Your task to perform on an android device: change notification settings in the gmail app Image 0: 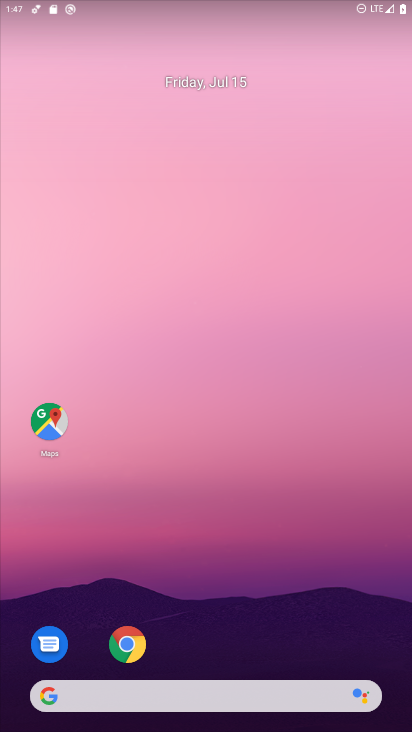
Step 0: drag from (19, 610) to (405, 34)
Your task to perform on an android device: change notification settings in the gmail app Image 1: 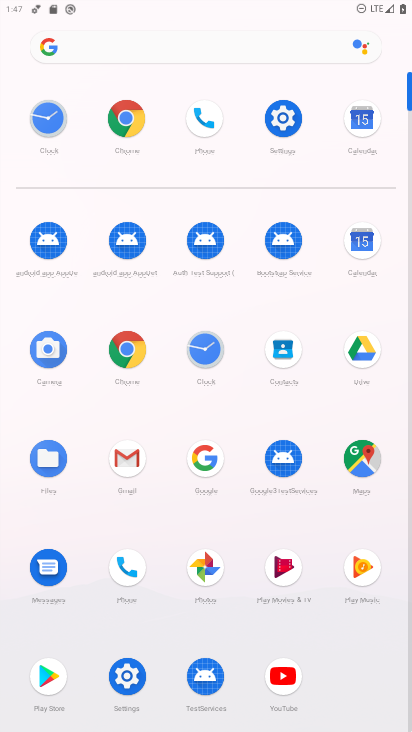
Step 1: click (131, 461)
Your task to perform on an android device: change notification settings in the gmail app Image 2: 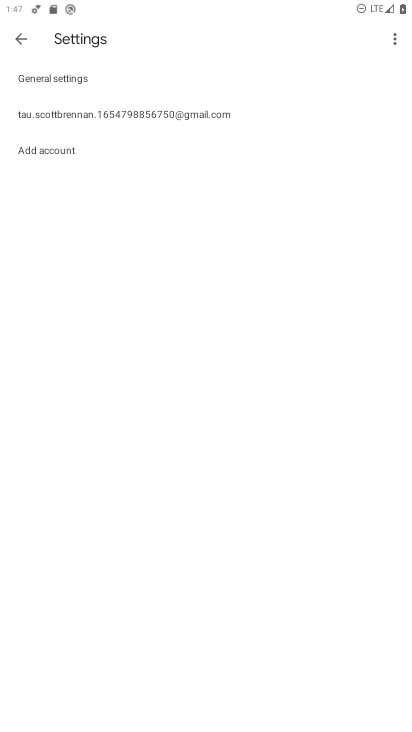
Step 2: click (152, 104)
Your task to perform on an android device: change notification settings in the gmail app Image 3: 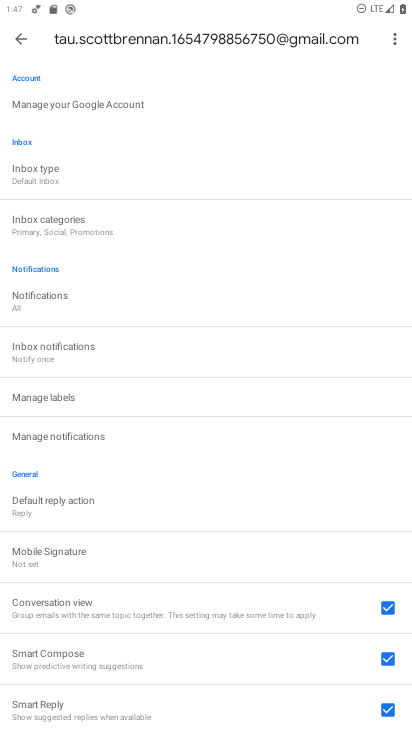
Step 3: click (156, 218)
Your task to perform on an android device: change notification settings in the gmail app Image 4: 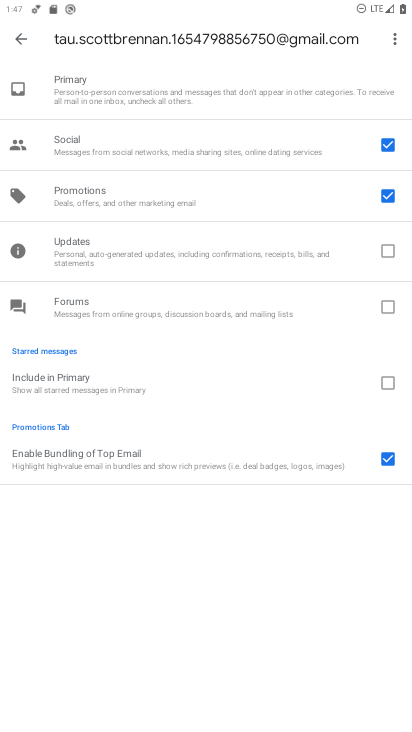
Step 4: task complete